Your task to perform on an android device: search for starred emails in the gmail app Image 0: 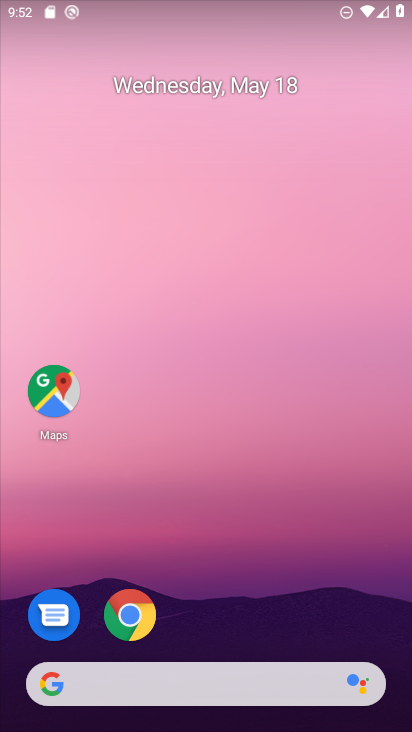
Step 0: drag from (236, 586) to (218, 83)
Your task to perform on an android device: search for starred emails in the gmail app Image 1: 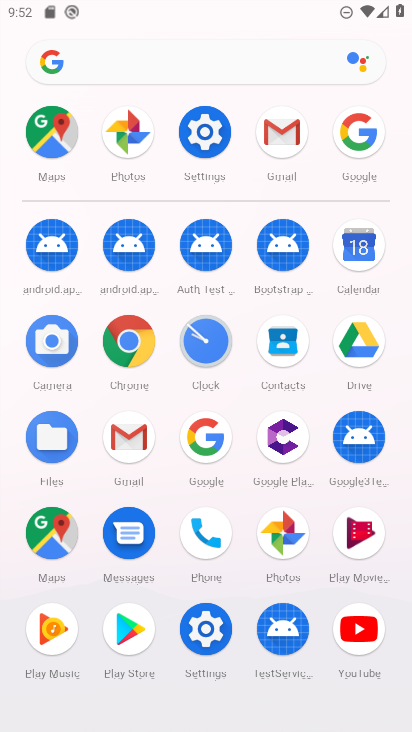
Step 1: click (286, 137)
Your task to perform on an android device: search for starred emails in the gmail app Image 2: 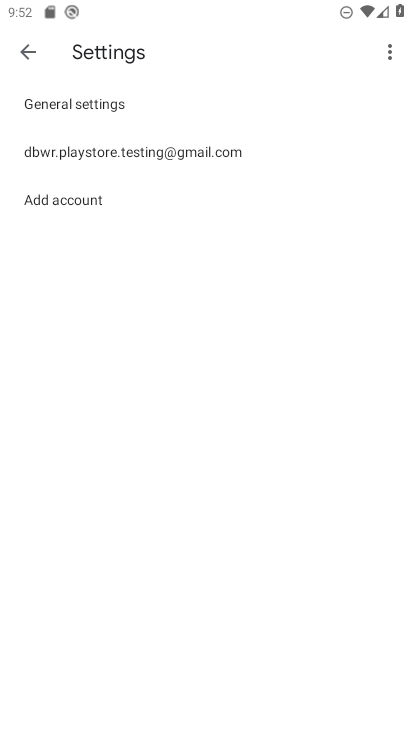
Step 2: press back button
Your task to perform on an android device: search for starred emails in the gmail app Image 3: 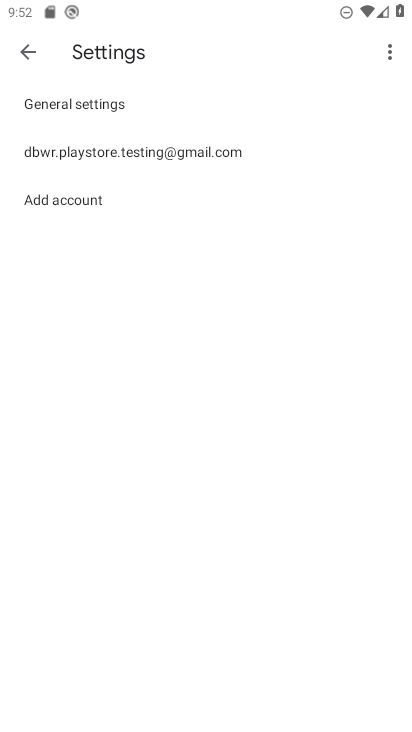
Step 3: press back button
Your task to perform on an android device: search for starred emails in the gmail app Image 4: 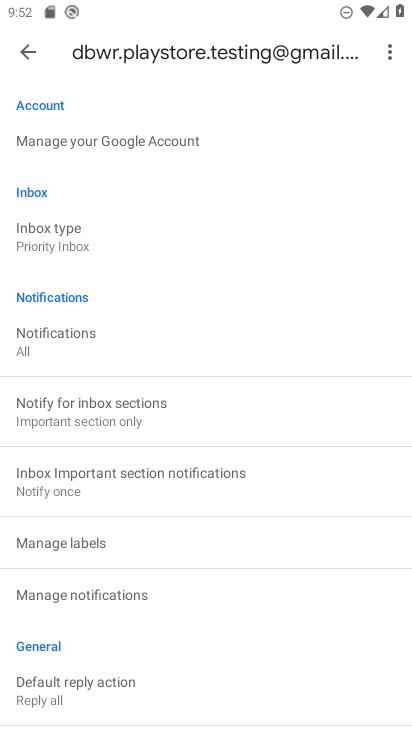
Step 4: press back button
Your task to perform on an android device: search for starred emails in the gmail app Image 5: 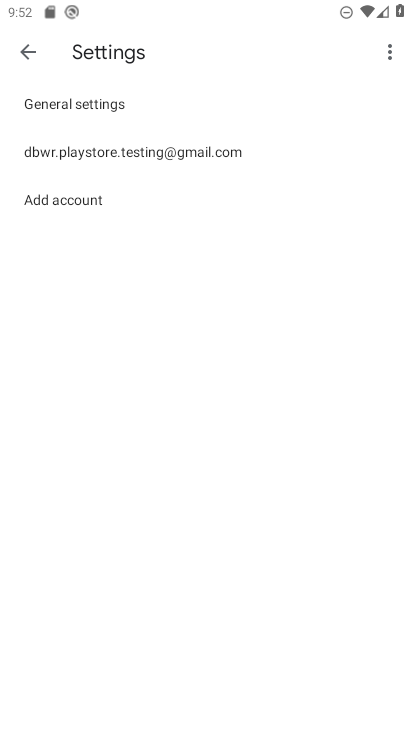
Step 5: press back button
Your task to perform on an android device: search for starred emails in the gmail app Image 6: 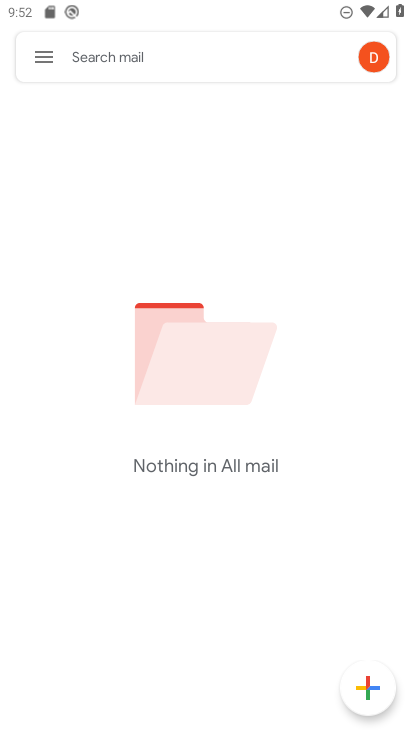
Step 6: click (54, 59)
Your task to perform on an android device: search for starred emails in the gmail app Image 7: 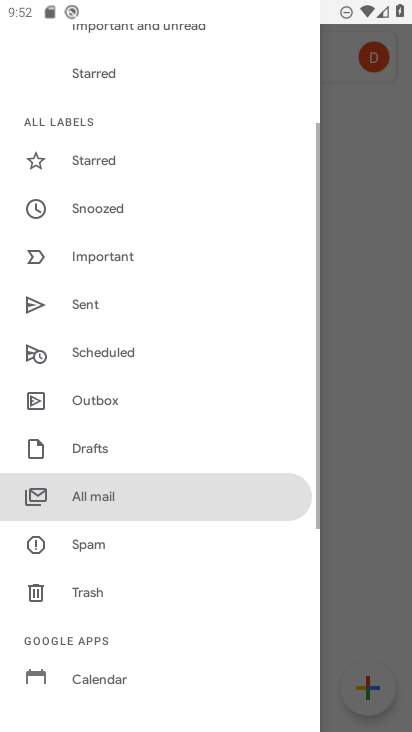
Step 7: click (102, 163)
Your task to perform on an android device: search for starred emails in the gmail app Image 8: 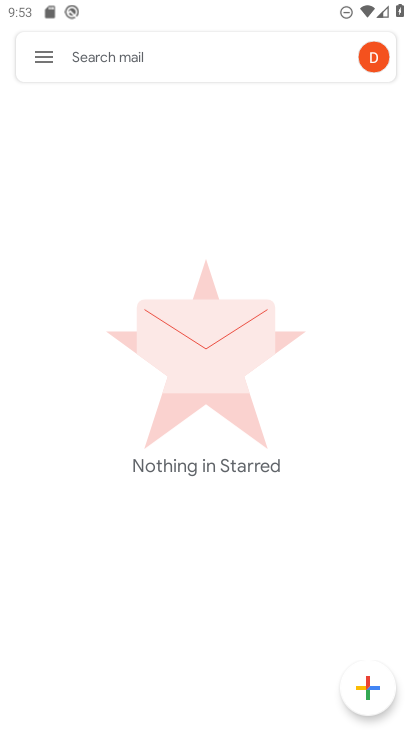
Step 8: task complete